Your task to perform on an android device: turn off priority inbox in the gmail app Image 0: 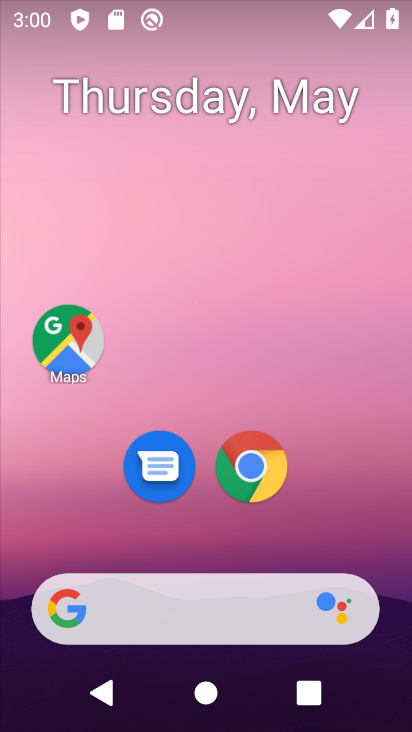
Step 0: drag from (377, 546) to (332, 11)
Your task to perform on an android device: turn off priority inbox in the gmail app Image 1: 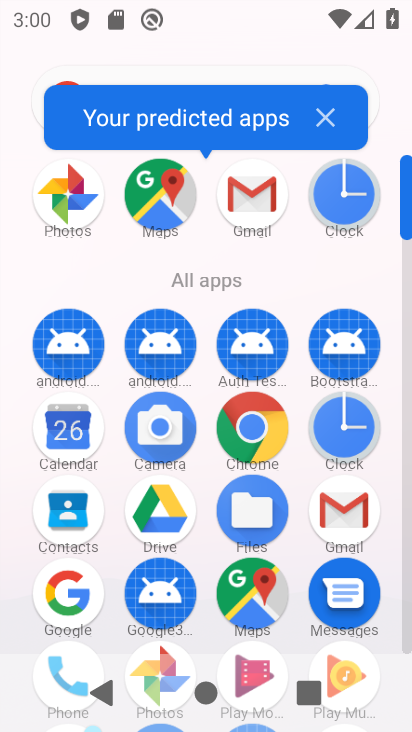
Step 1: click (358, 527)
Your task to perform on an android device: turn off priority inbox in the gmail app Image 2: 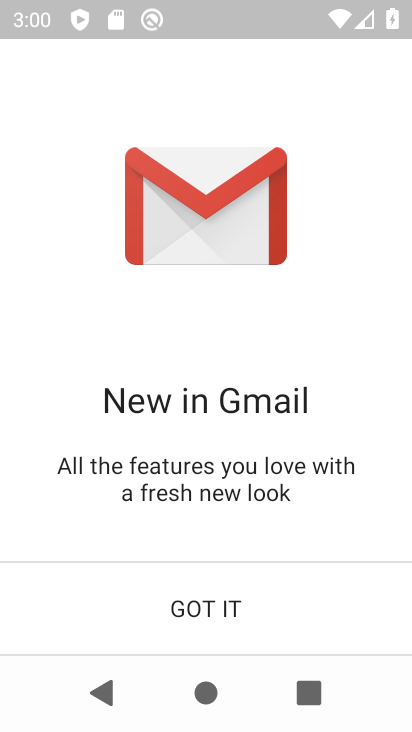
Step 2: click (237, 611)
Your task to perform on an android device: turn off priority inbox in the gmail app Image 3: 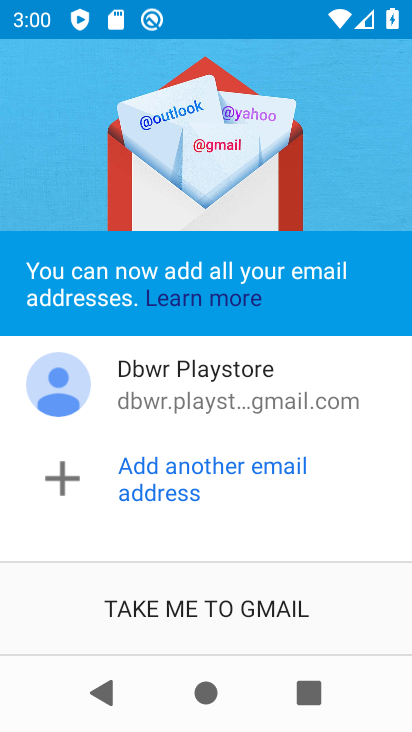
Step 3: click (237, 611)
Your task to perform on an android device: turn off priority inbox in the gmail app Image 4: 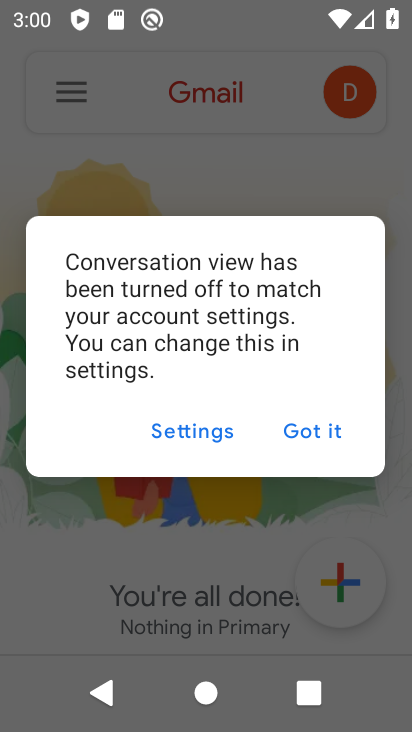
Step 4: click (328, 430)
Your task to perform on an android device: turn off priority inbox in the gmail app Image 5: 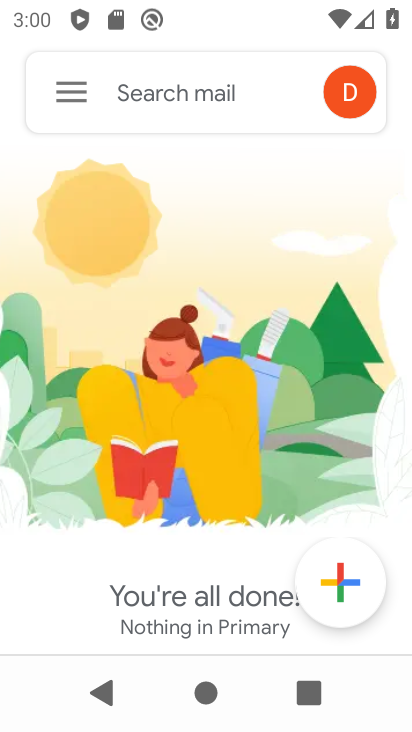
Step 5: drag from (152, 667) to (323, 427)
Your task to perform on an android device: turn off priority inbox in the gmail app Image 6: 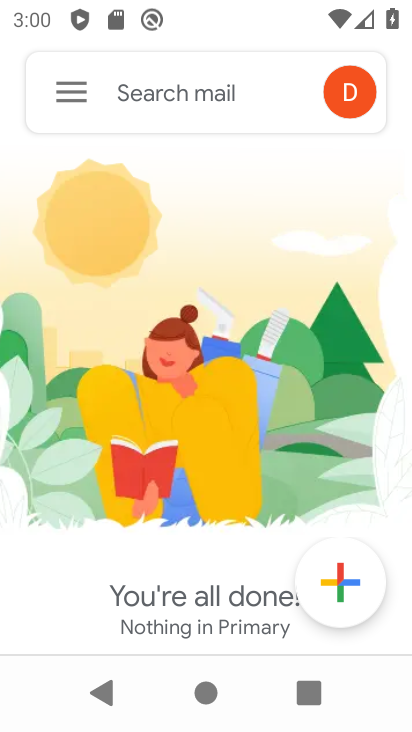
Step 6: click (73, 86)
Your task to perform on an android device: turn off priority inbox in the gmail app Image 7: 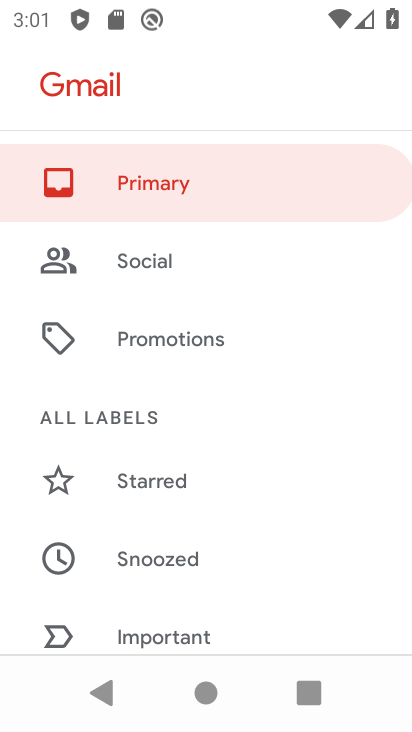
Step 7: drag from (182, 596) to (180, 176)
Your task to perform on an android device: turn off priority inbox in the gmail app Image 8: 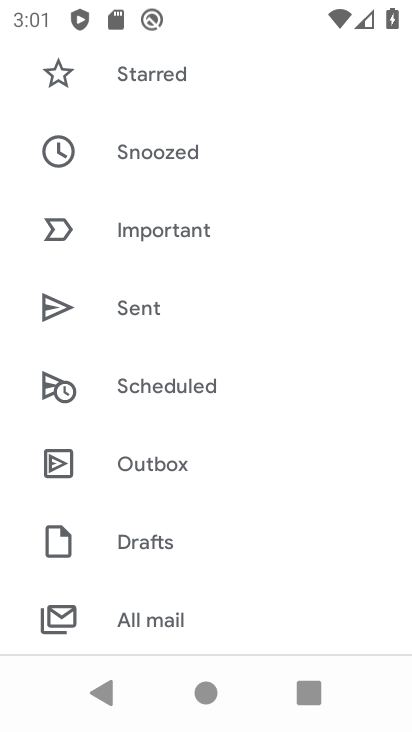
Step 8: drag from (149, 575) to (135, 155)
Your task to perform on an android device: turn off priority inbox in the gmail app Image 9: 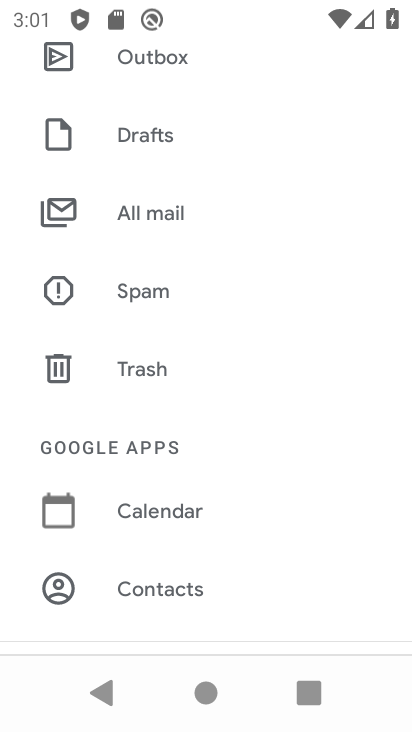
Step 9: drag from (188, 561) to (162, 186)
Your task to perform on an android device: turn off priority inbox in the gmail app Image 10: 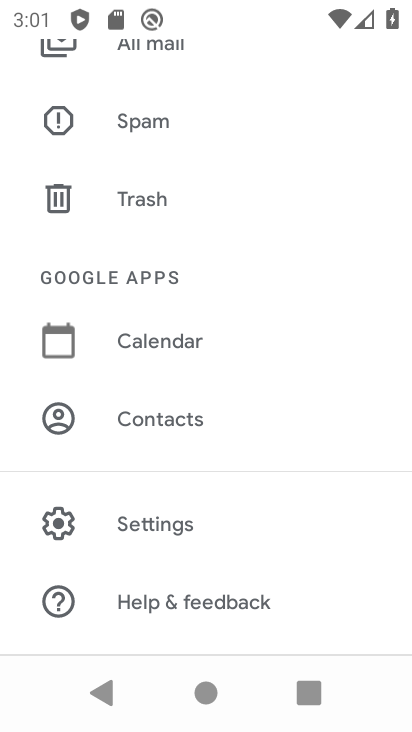
Step 10: click (166, 520)
Your task to perform on an android device: turn off priority inbox in the gmail app Image 11: 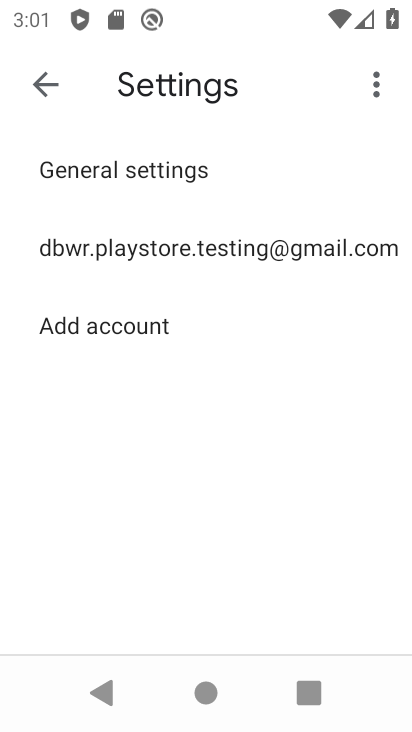
Step 11: click (245, 250)
Your task to perform on an android device: turn off priority inbox in the gmail app Image 12: 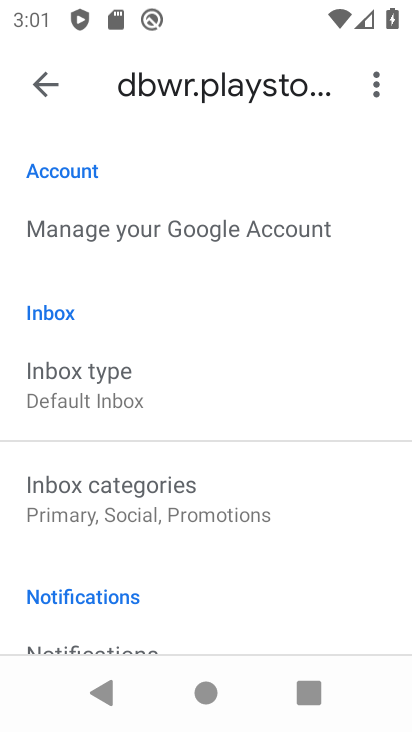
Step 12: click (183, 409)
Your task to perform on an android device: turn off priority inbox in the gmail app Image 13: 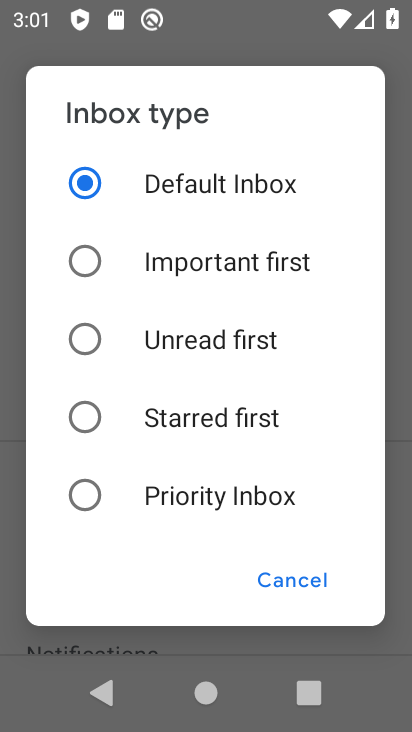
Step 13: task complete